Your task to perform on an android device: allow cookies in the chrome app Image 0: 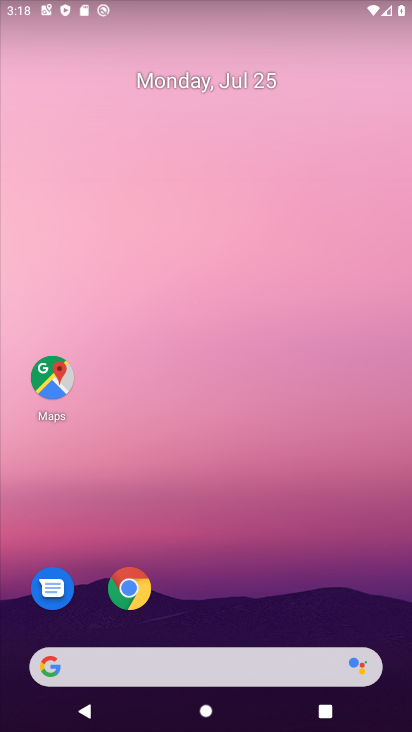
Step 0: click (123, 595)
Your task to perform on an android device: allow cookies in the chrome app Image 1: 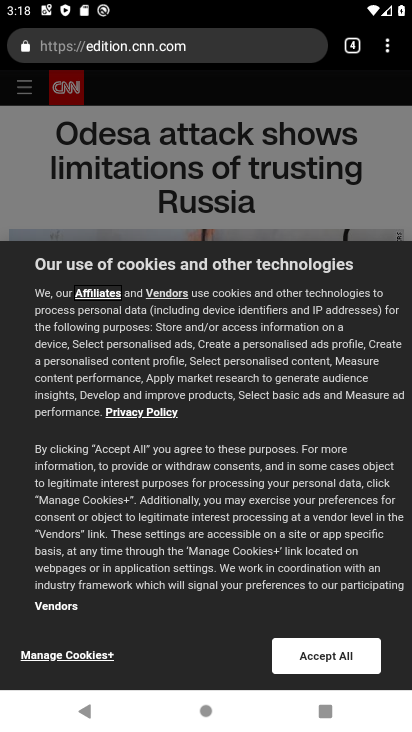
Step 1: click (387, 47)
Your task to perform on an android device: allow cookies in the chrome app Image 2: 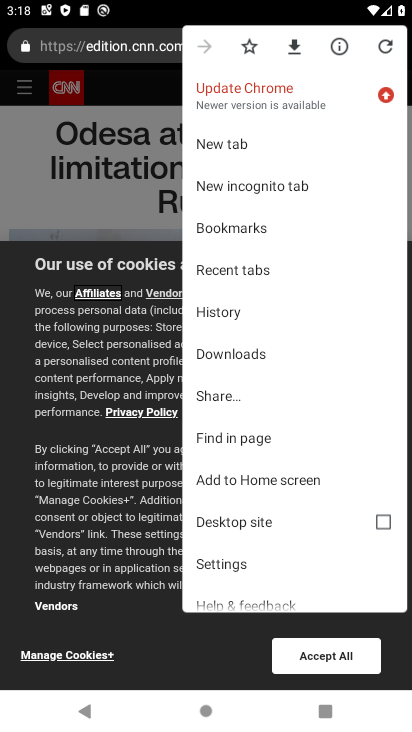
Step 2: click (230, 562)
Your task to perform on an android device: allow cookies in the chrome app Image 3: 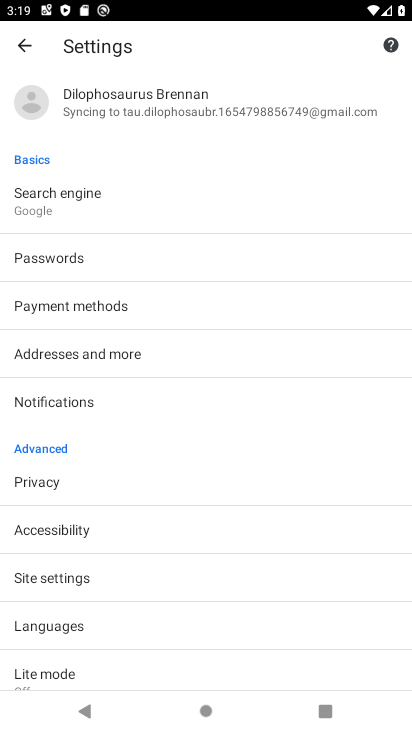
Step 3: click (79, 568)
Your task to perform on an android device: allow cookies in the chrome app Image 4: 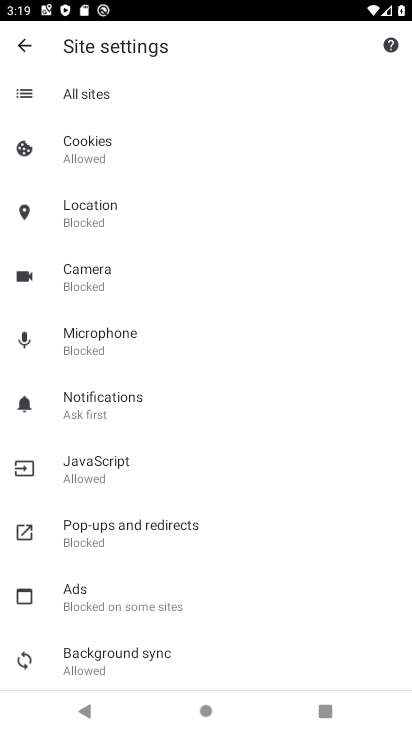
Step 4: click (86, 148)
Your task to perform on an android device: allow cookies in the chrome app Image 5: 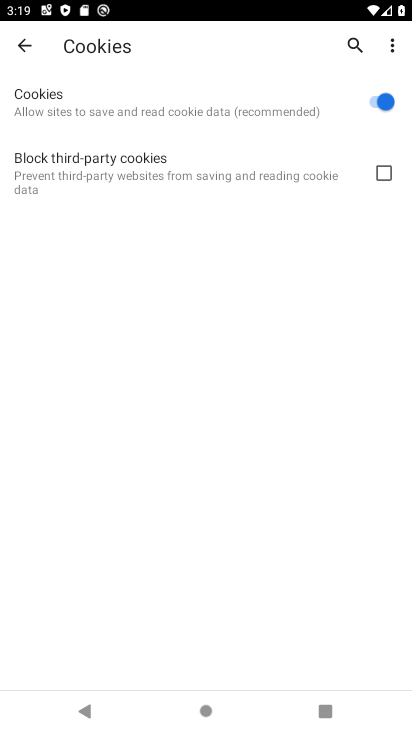
Step 5: task complete